Your task to perform on an android device: View the shopping cart on amazon.com. Add logitech g933 to the cart on amazon.com, then select checkout. Image 0: 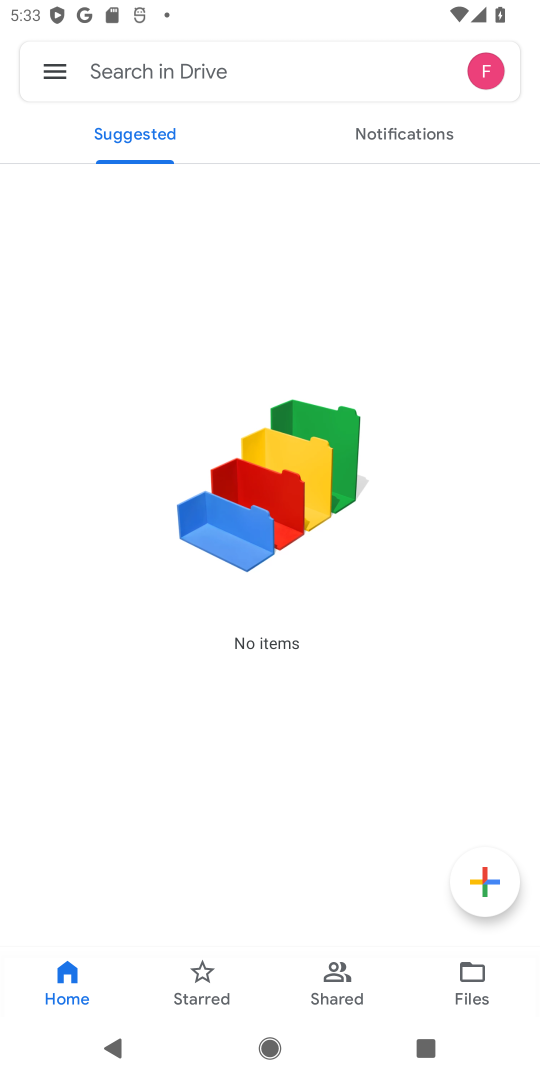
Step 0: press home button
Your task to perform on an android device: View the shopping cart on amazon.com. Add logitech g933 to the cart on amazon.com, then select checkout. Image 1: 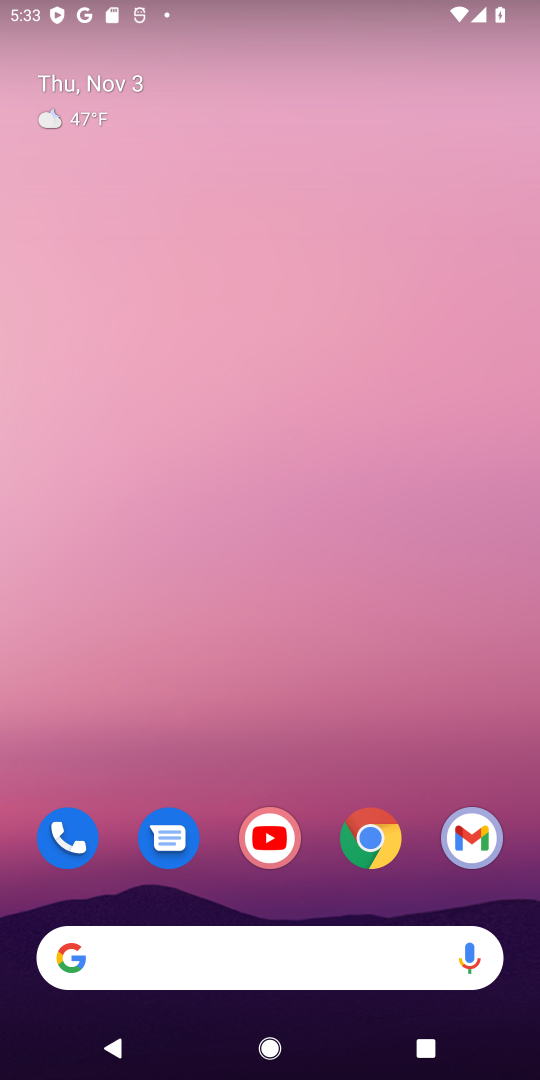
Step 1: drag from (272, 870) to (254, 60)
Your task to perform on an android device: View the shopping cart on amazon.com. Add logitech g933 to the cart on amazon.com, then select checkout. Image 2: 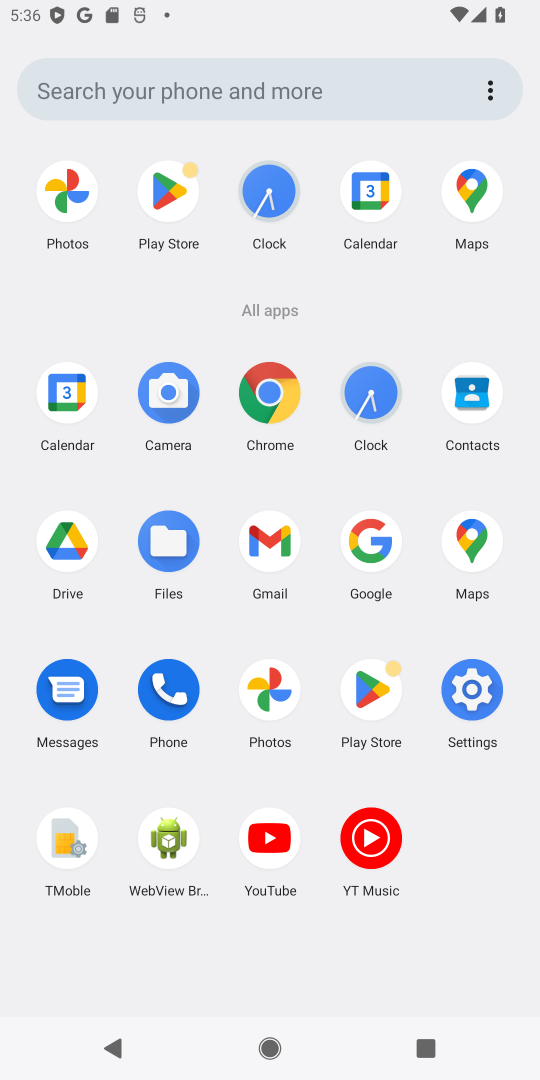
Step 2: click (373, 553)
Your task to perform on an android device: View the shopping cart on amazon.com. Add logitech g933 to the cart on amazon.com, then select checkout. Image 3: 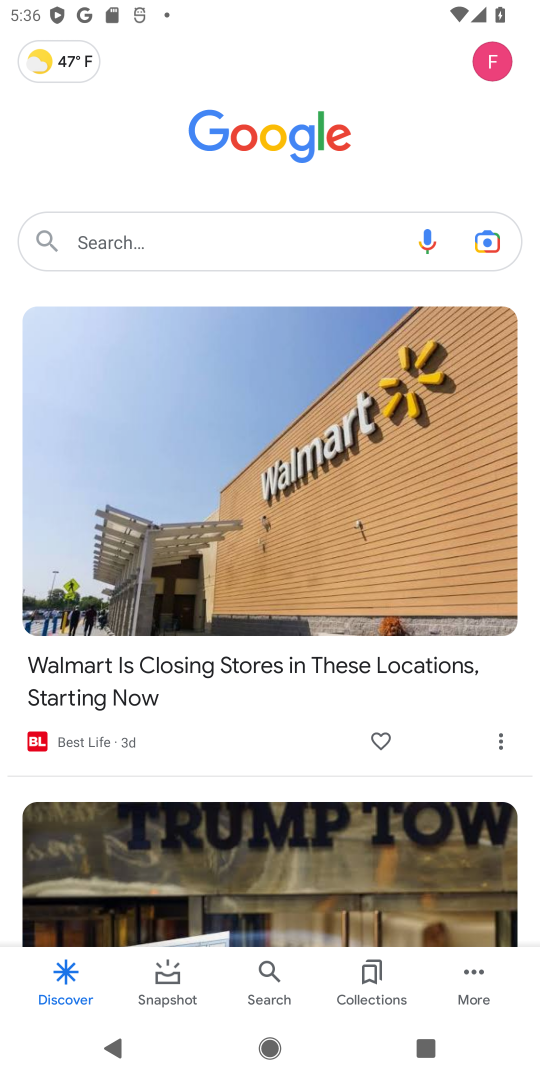
Step 3: type "amazon.com"
Your task to perform on an android device: View the shopping cart on amazon.com. Add logitech g933 to the cart on amazon.com, then select checkout. Image 4: 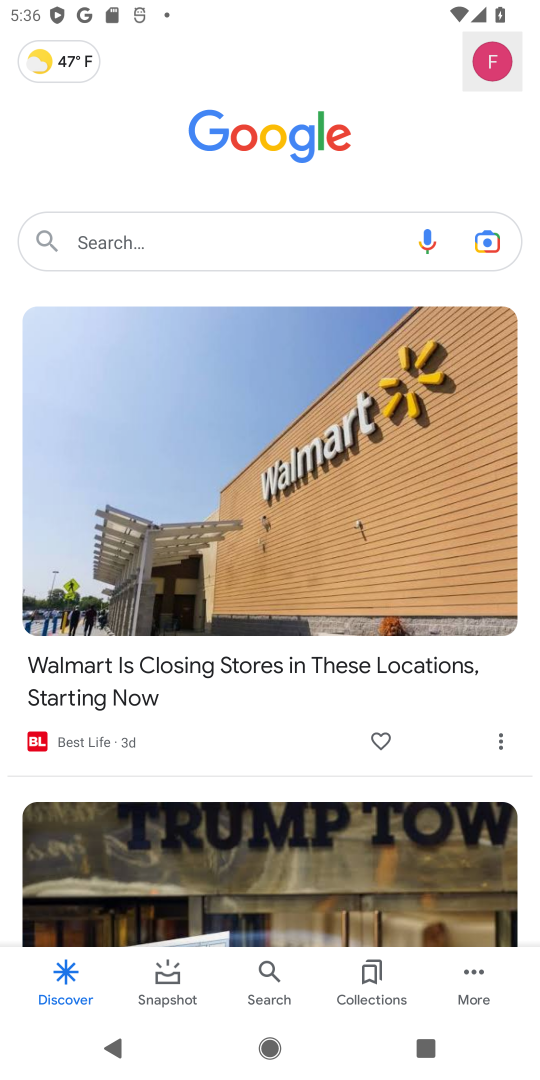
Step 4: click (300, 245)
Your task to perform on an android device: View the shopping cart on amazon.com. Add logitech g933 to the cart on amazon.com, then select checkout. Image 5: 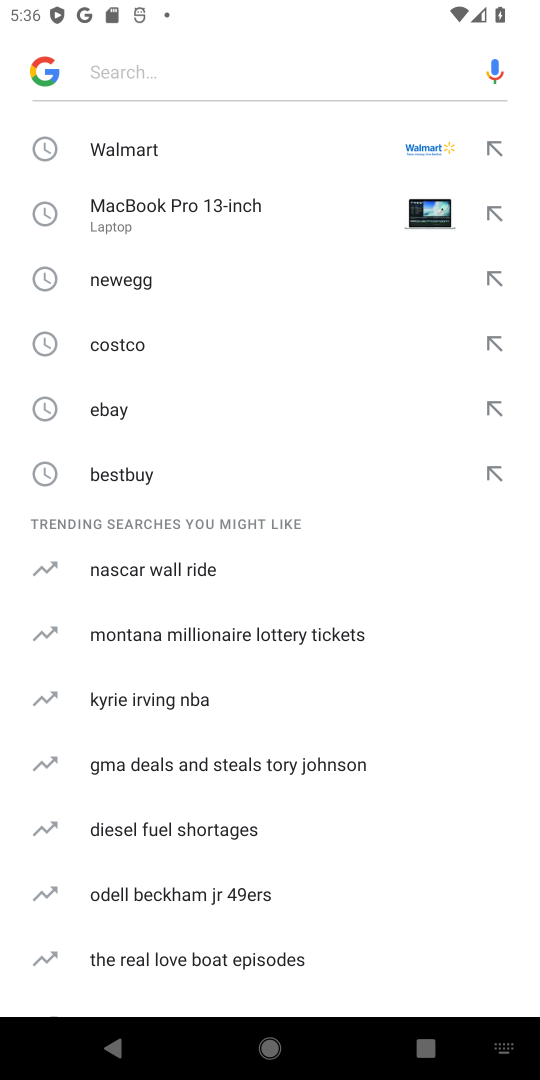
Step 5: type "amazon.com"
Your task to perform on an android device: View the shopping cart on amazon.com. Add logitech g933 to the cart on amazon.com, then select checkout. Image 6: 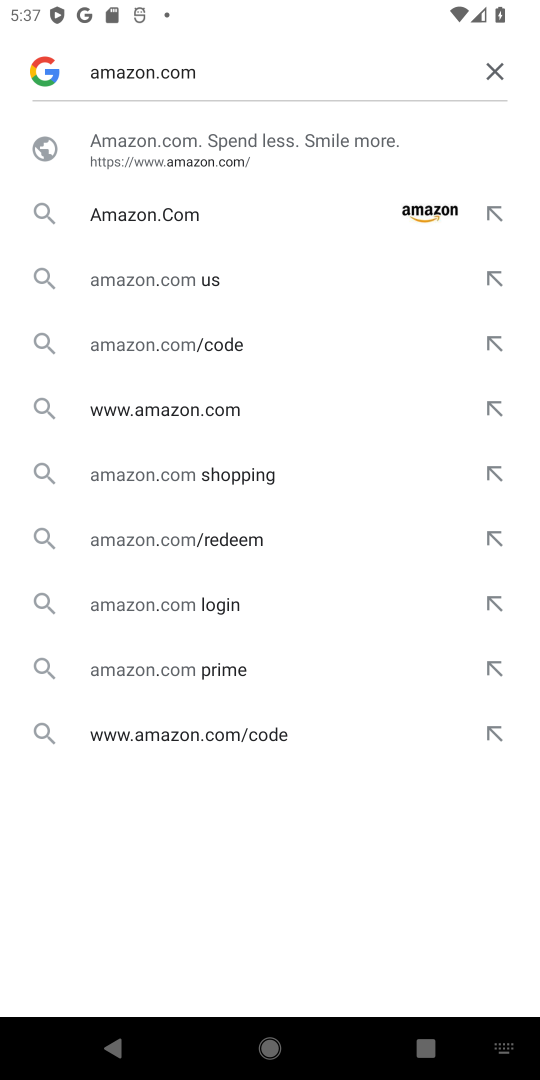
Step 6: click (260, 226)
Your task to perform on an android device: View the shopping cart on amazon.com. Add logitech g933 to the cart on amazon.com, then select checkout. Image 7: 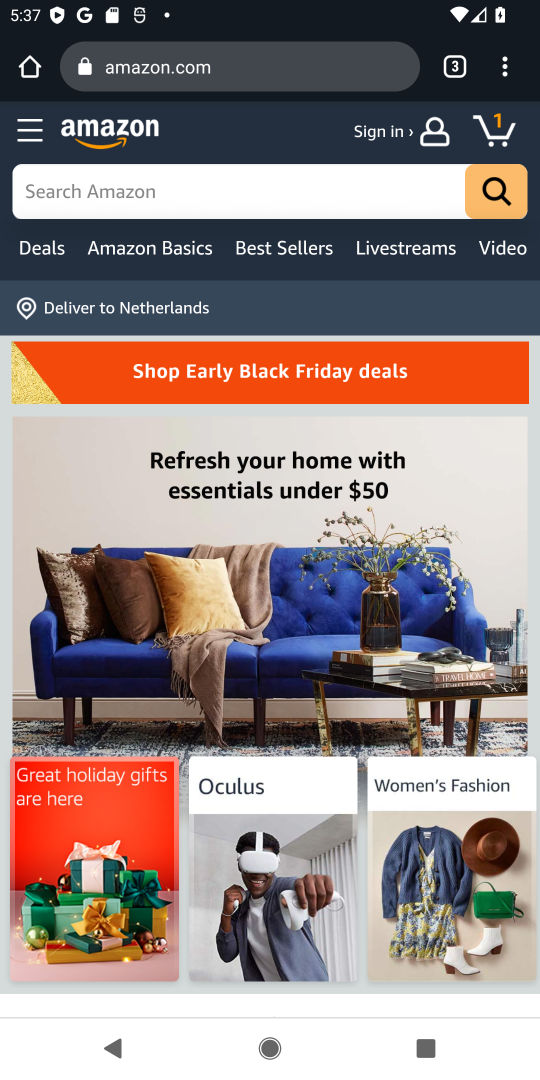
Step 7: click (355, 188)
Your task to perform on an android device: View the shopping cart on amazon.com. Add logitech g933 to the cart on amazon.com, then select checkout. Image 8: 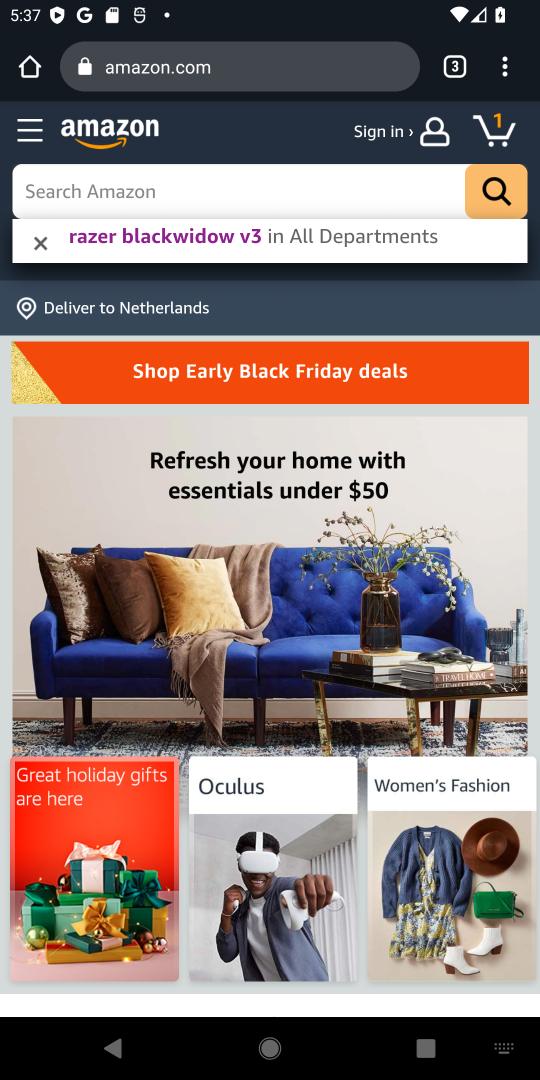
Step 8: click (493, 131)
Your task to perform on an android device: View the shopping cart on amazon.com. Add logitech g933 to the cart on amazon.com, then select checkout. Image 9: 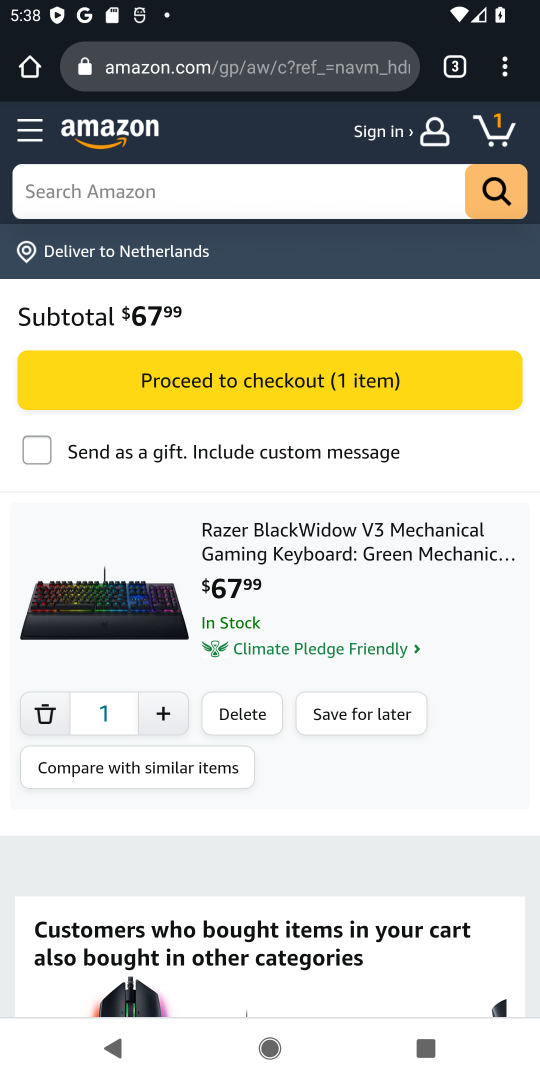
Step 9: click (156, 190)
Your task to perform on an android device: View the shopping cart on amazon.com. Add logitech g933 to the cart on amazon.com, then select checkout. Image 10: 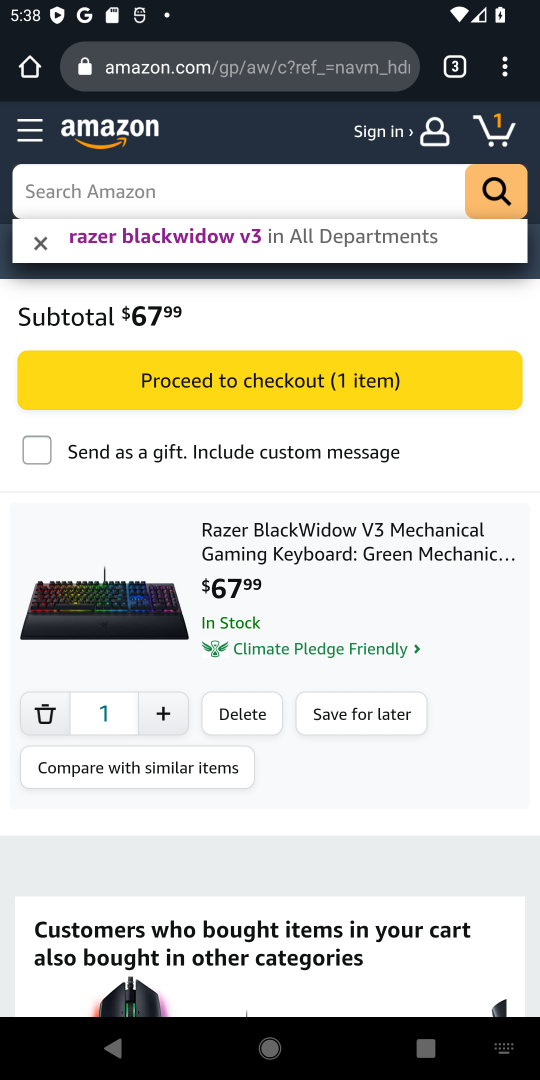
Step 10: type "logitech g933"
Your task to perform on an android device: View the shopping cart on amazon.com. Add logitech g933 to the cart on amazon.com, then select checkout. Image 11: 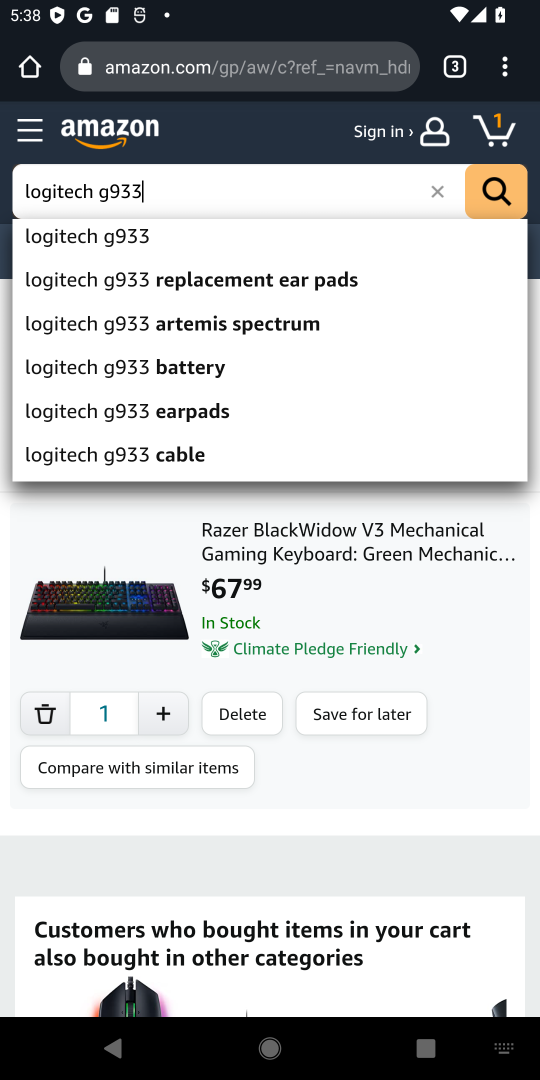
Step 11: click (126, 236)
Your task to perform on an android device: View the shopping cart on amazon.com. Add logitech g933 to the cart on amazon.com, then select checkout. Image 12: 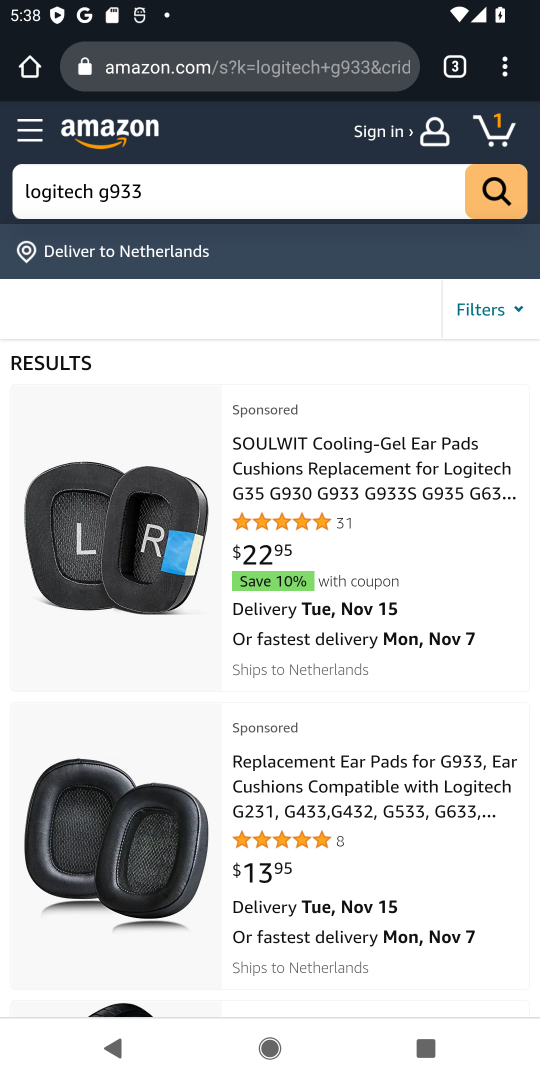
Step 12: click (293, 464)
Your task to perform on an android device: View the shopping cart on amazon.com. Add logitech g933 to the cart on amazon.com, then select checkout. Image 13: 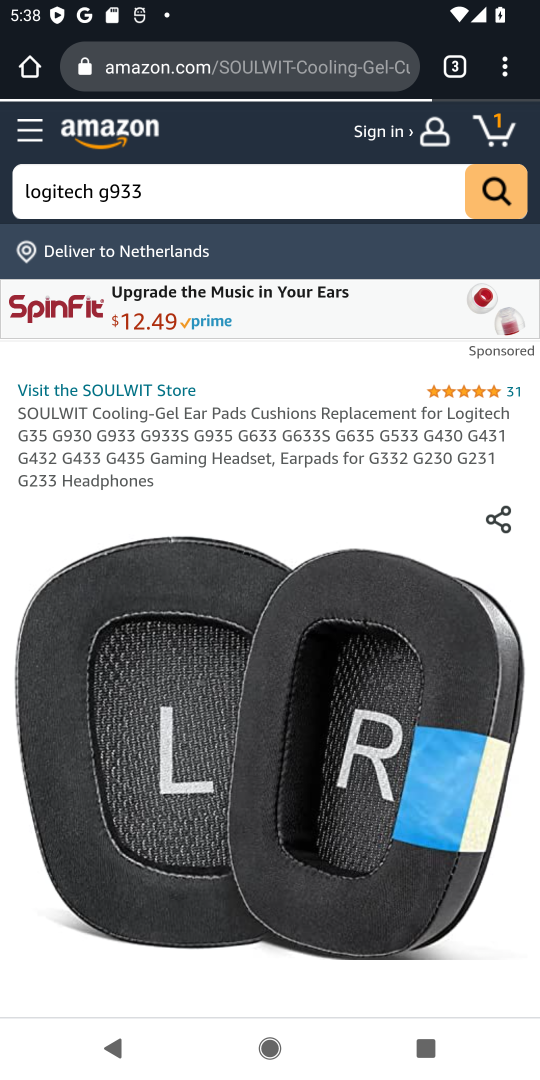
Step 13: drag from (292, 631) to (290, 248)
Your task to perform on an android device: View the shopping cart on amazon.com. Add logitech g933 to the cart on amazon.com, then select checkout. Image 14: 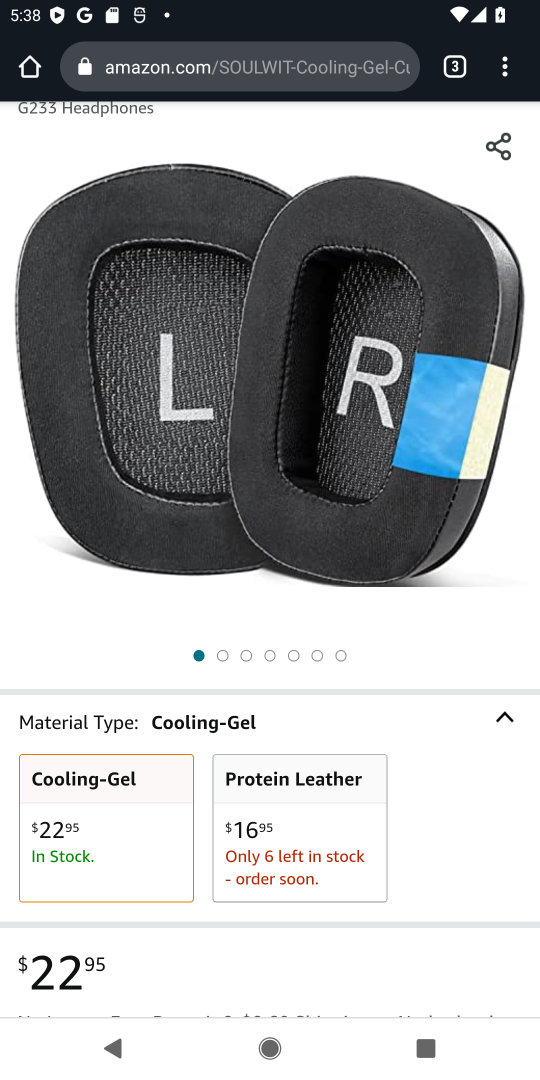
Step 14: drag from (456, 650) to (493, 585)
Your task to perform on an android device: View the shopping cart on amazon.com. Add logitech g933 to the cart on amazon.com, then select checkout. Image 15: 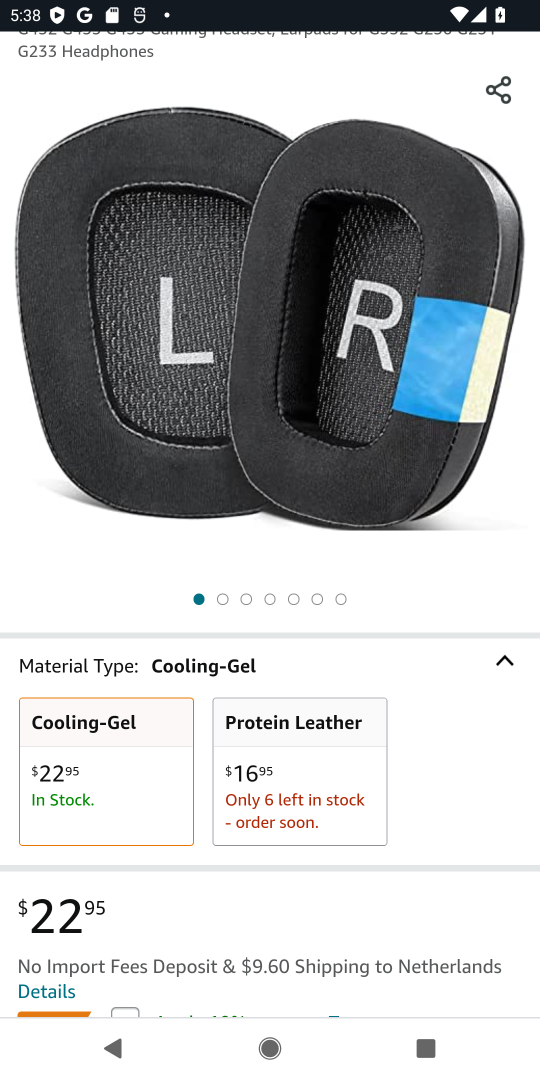
Step 15: drag from (289, 882) to (321, 699)
Your task to perform on an android device: View the shopping cart on amazon.com. Add logitech g933 to the cart on amazon.com, then select checkout. Image 16: 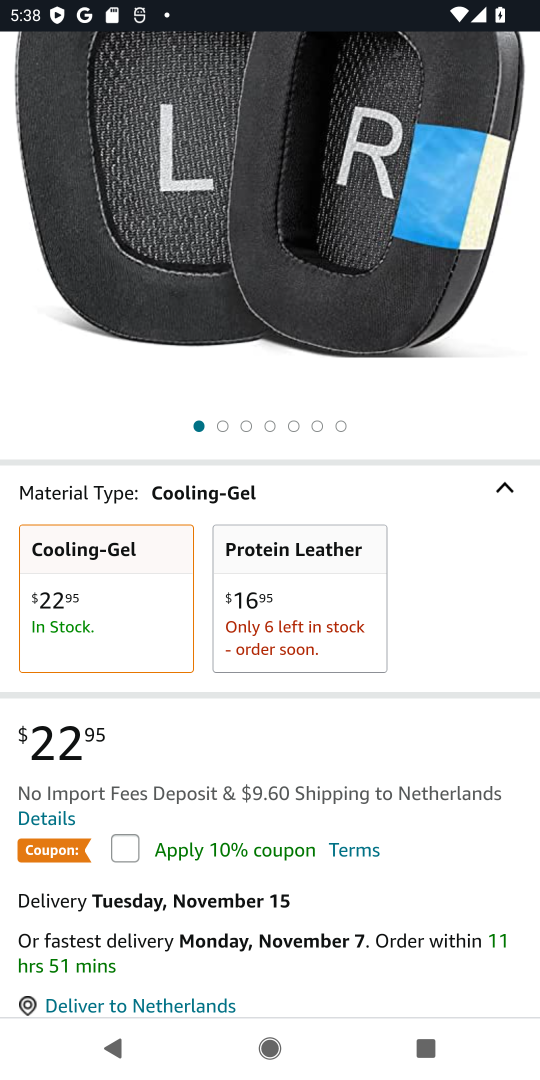
Step 16: drag from (407, 724) to (417, 663)
Your task to perform on an android device: View the shopping cart on amazon.com. Add logitech g933 to the cart on amazon.com, then select checkout. Image 17: 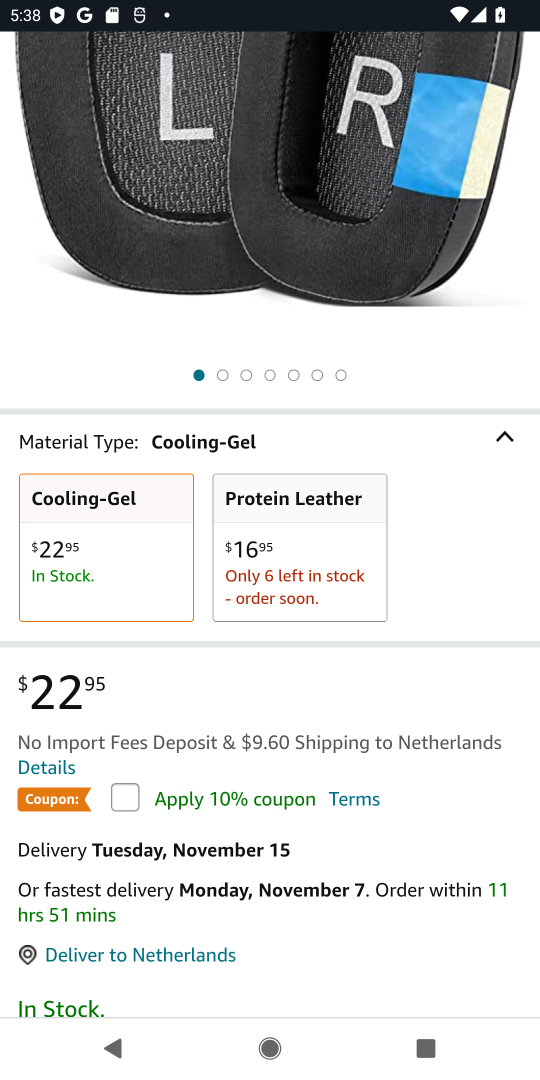
Step 17: drag from (364, 825) to (386, 696)
Your task to perform on an android device: View the shopping cart on amazon.com. Add logitech g933 to the cart on amazon.com, then select checkout. Image 18: 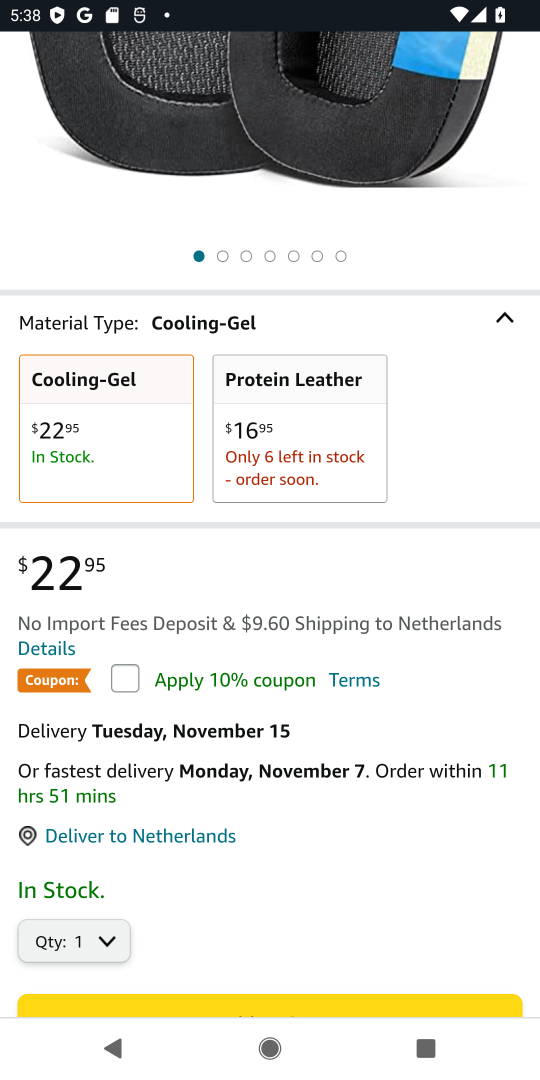
Step 18: drag from (316, 837) to (323, 770)
Your task to perform on an android device: View the shopping cart on amazon.com. Add logitech g933 to the cart on amazon.com, then select checkout. Image 19: 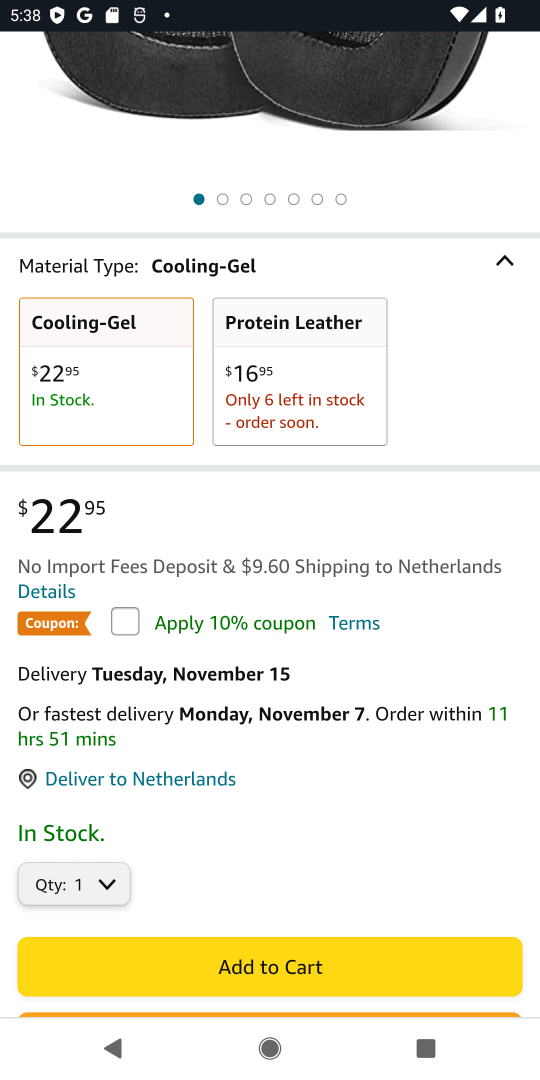
Step 19: click (271, 976)
Your task to perform on an android device: View the shopping cart on amazon.com. Add logitech g933 to the cart on amazon.com, then select checkout. Image 20: 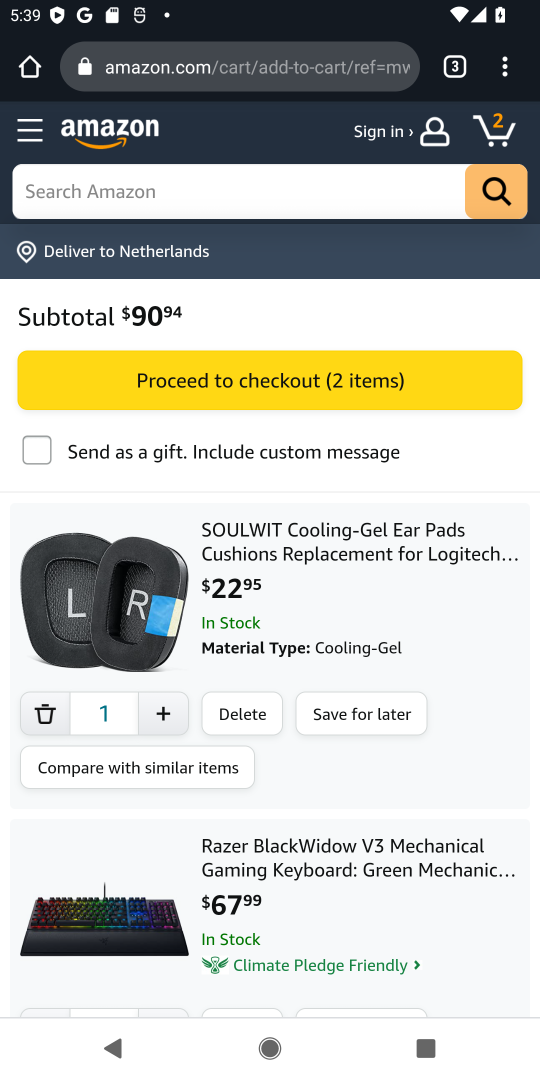
Step 20: click (254, 369)
Your task to perform on an android device: View the shopping cart on amazon.com. Add logitech g933 to the cart on amazon.com, then select checkout. Image 21: 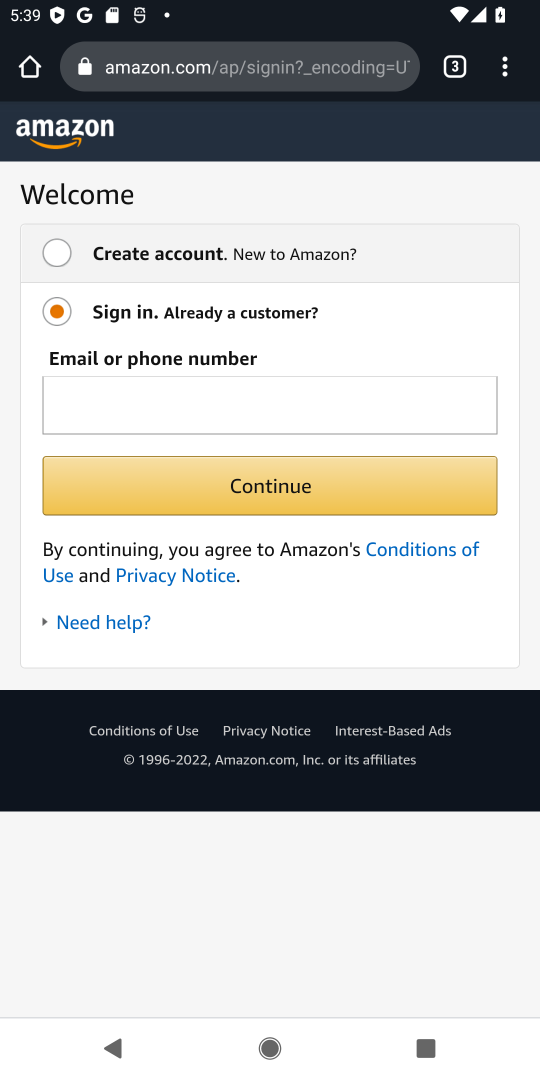
Step 21: task complete